Your task to perform on an android device: Open calendar and show me the fourth week of next month Image 0: 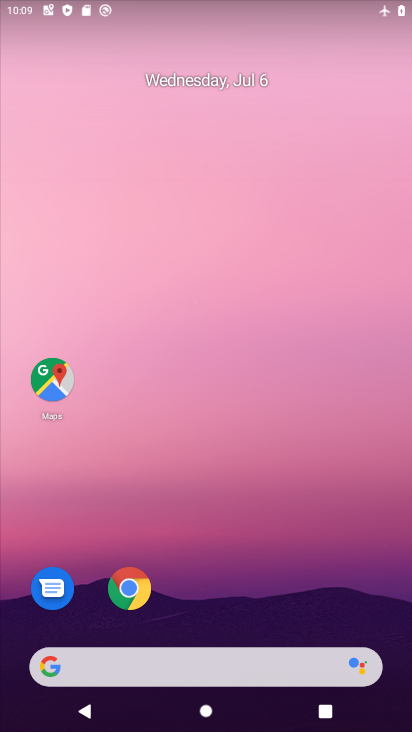
Step 0: drag from (202, 582) to (229, 179)
Your task to perform on an android device: Open calendar and show me the fourth week of next month Image 1: 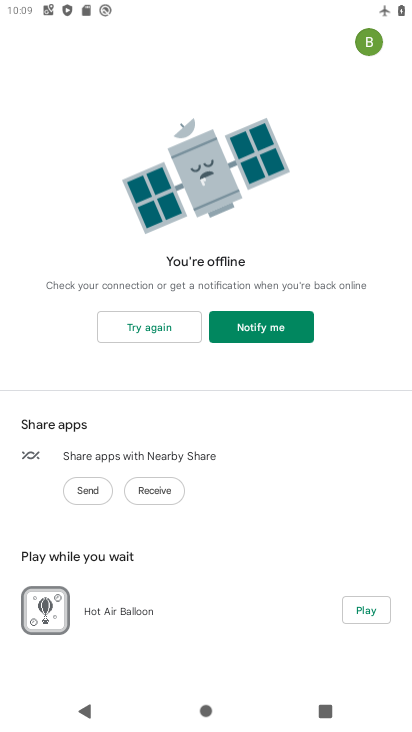
Step 1: press home button
Your task to perform on an android device: Open calendar and show me the fourth week of next month Image 2: 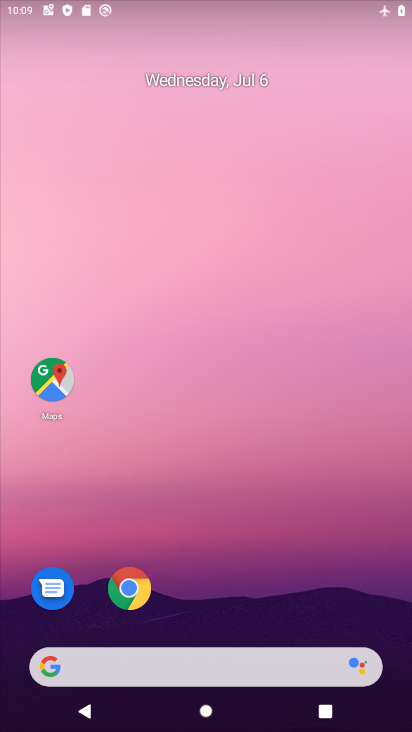
Step 2: drag from (241, 637) to (251, 206)
Your task to perform on an android device: Open calendar and show me the fourth week of next month Image 3: 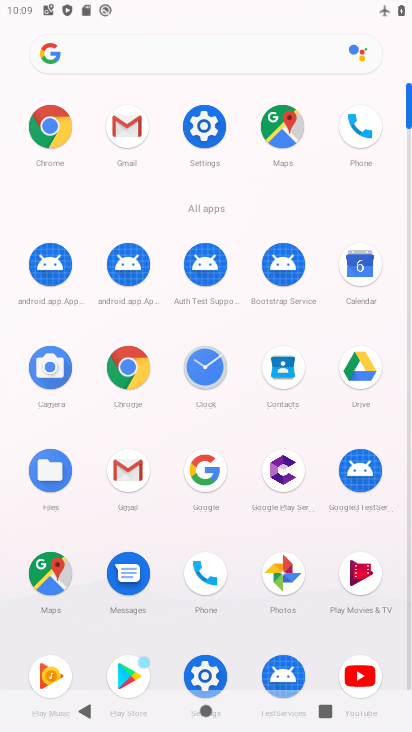
Step 3: click (355, 249)
Your task to perform on an android device: Open calendar and show me the fourth week of next month Image 4: 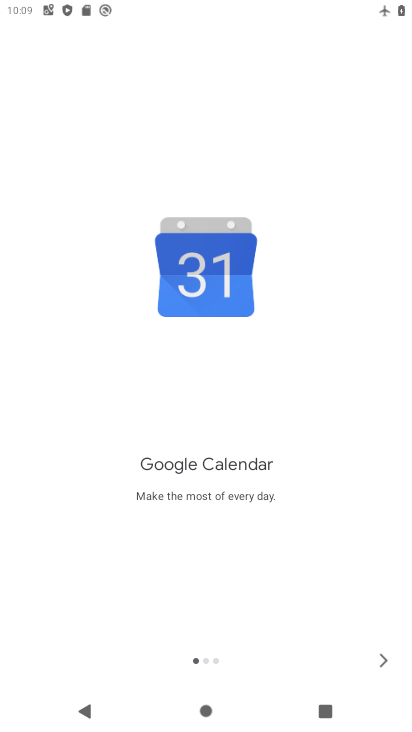
Step 4: click (384, 654)
Your task to perform on an android device: Open calendar and show me the fourth week of next month Image 5: 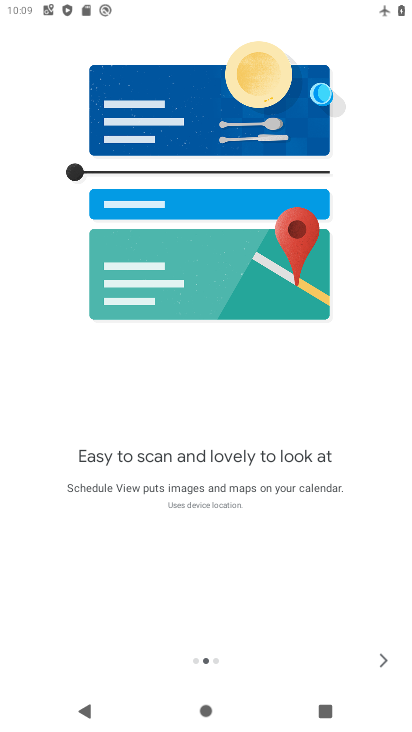
Step 5: click (373, 654)
Your task to perform on an android device: Open calendar and show me the fourth week of next month Image 6: 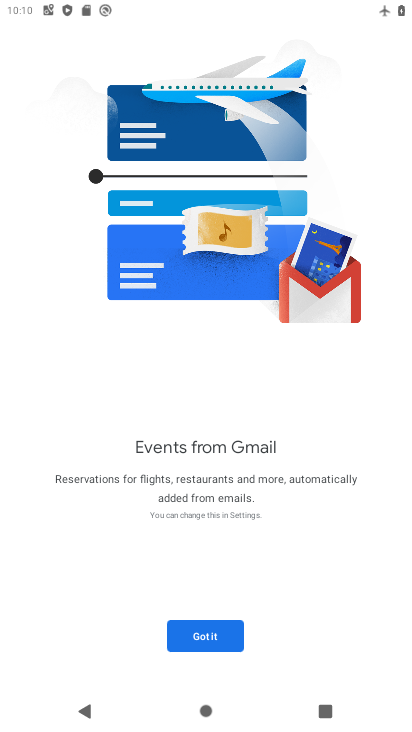
Step 6: click (217, 623)
Your task to perform on an android device: Open calendar and show me the fourth week of next month Image 7: 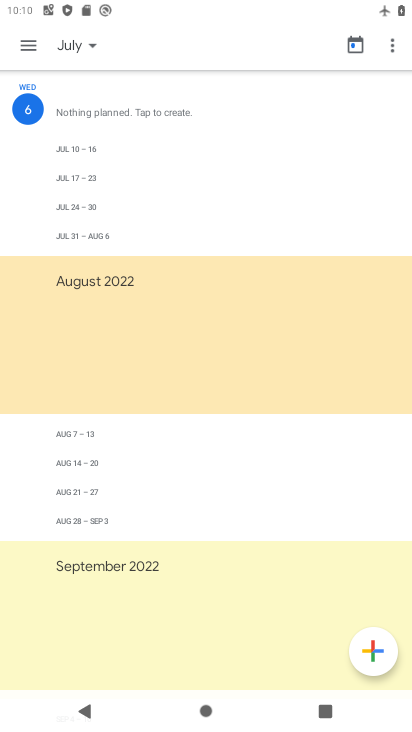
Step 7: click (29, 41)
Your task to perform on an android device: Open calendar and show me the fourth week of next month Image 8: 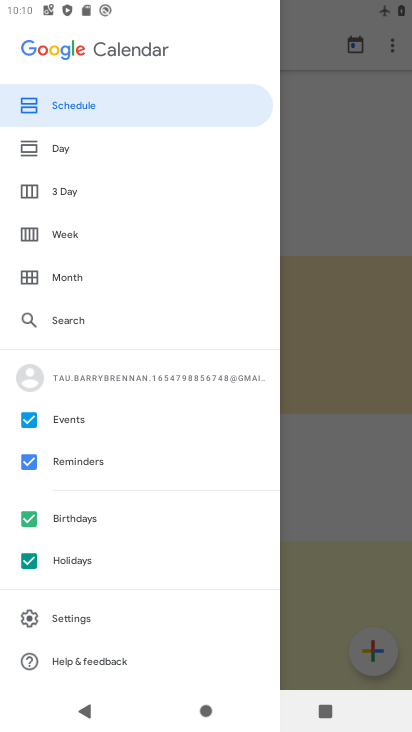
Step 8: click (81, 280)
Your task to perform on an android device: Open calendar and show me the fourth week of next month Image 9: 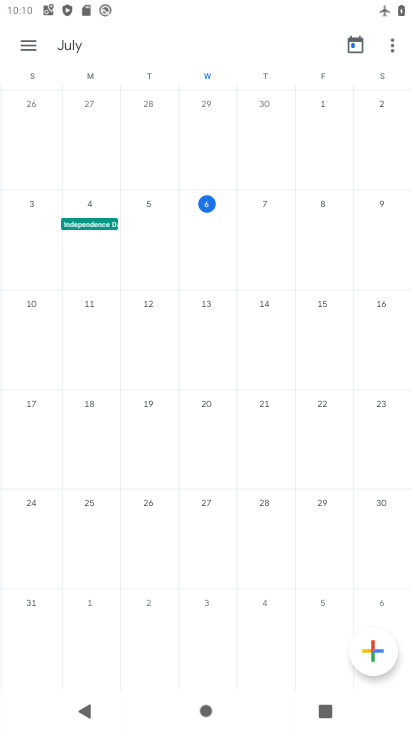
Step 9: task complete